Your task to perform on an android device: Where can I buy a nice beach blanket? Image 0: 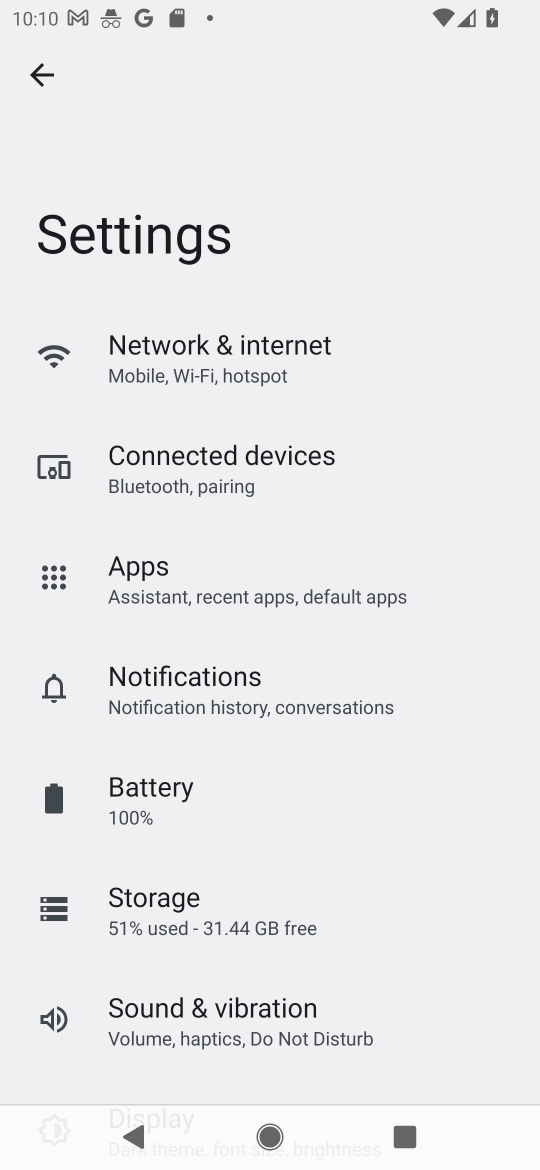
Step 0: press home button
Your task to perform on an android device: Where can I buy a nice beach blanket? Image 1: 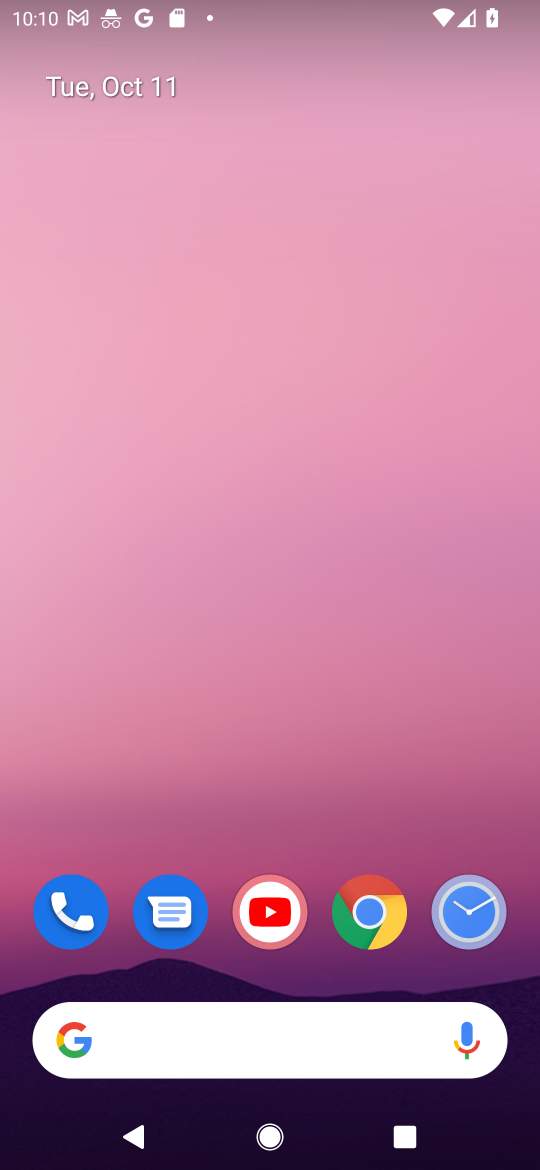
Step 1: click (365, 916)
Your task to perform on an android device: Where can I buy a nice beach blanket? Image 2: 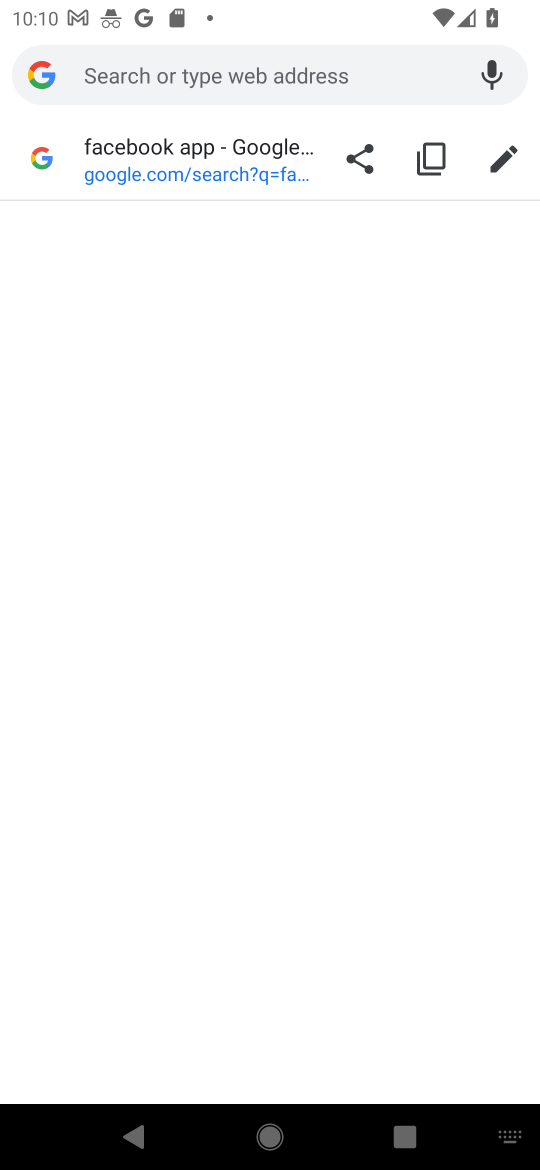
Step 2: click (146, 77)
Your task to perform on an android device: Where can I buy a nice beach blanket? Image 3: 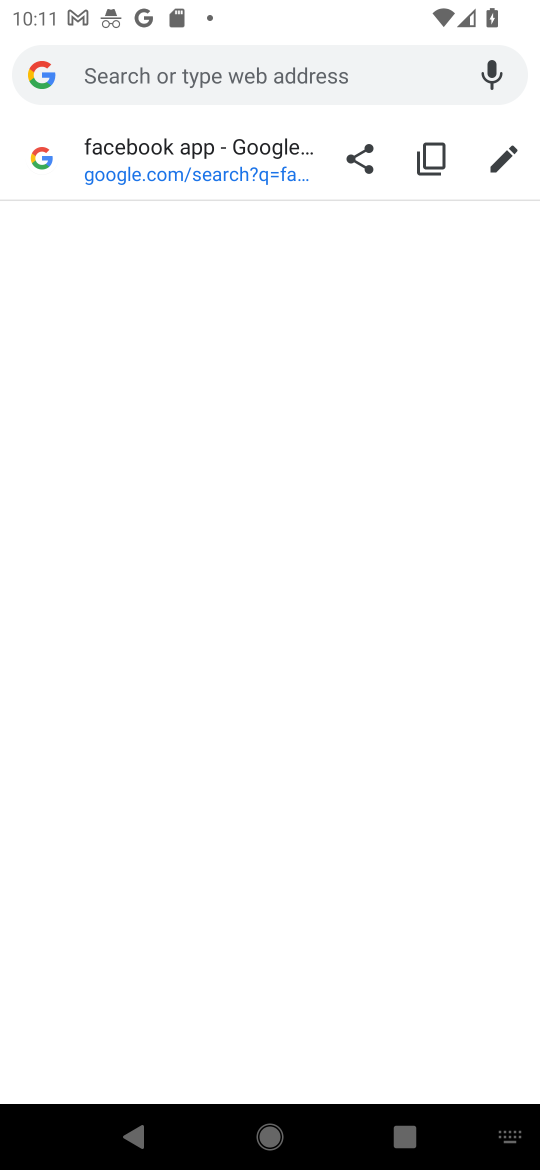
Step 3: type "nice beach blanket?"
Your task to perform on an android device: Where can I buy a nice beach blanket? Image 4: 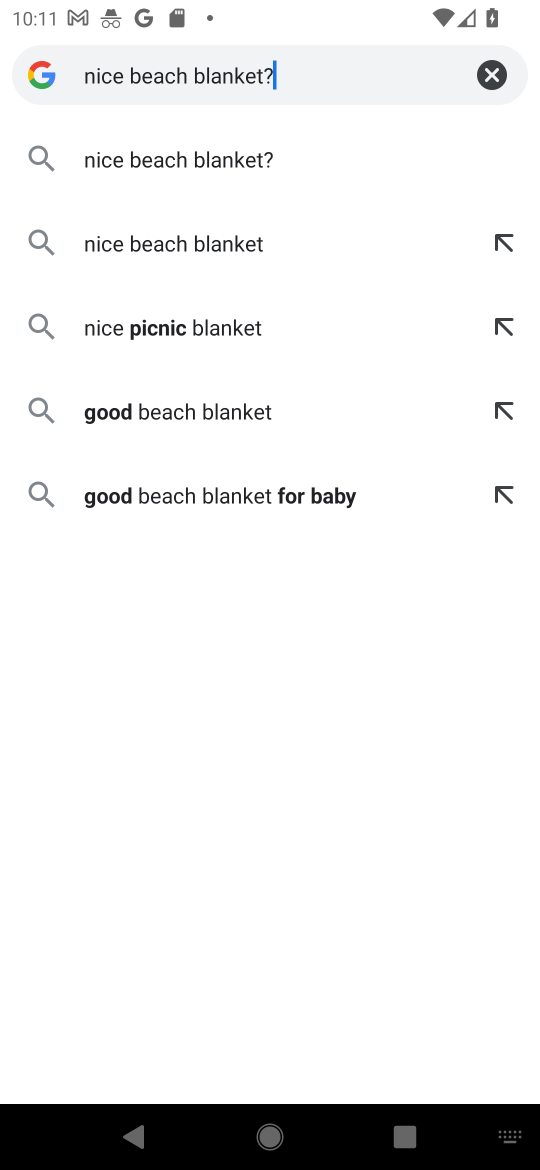
Step 4: click (126, 165)
Your task to perform on an android device: Where can I buy a nice beach blanket? Image 5: 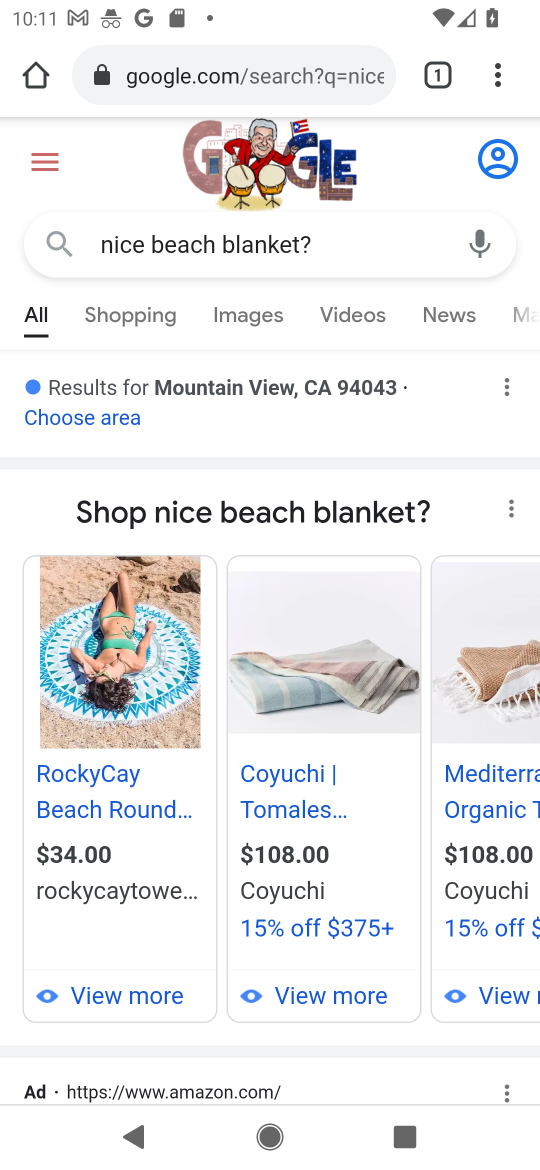
Step 5: drag from (218, 1016) to (210, 404)
Your task to perform on an android device: Where can I buy a nice beach blanket? Image 6: 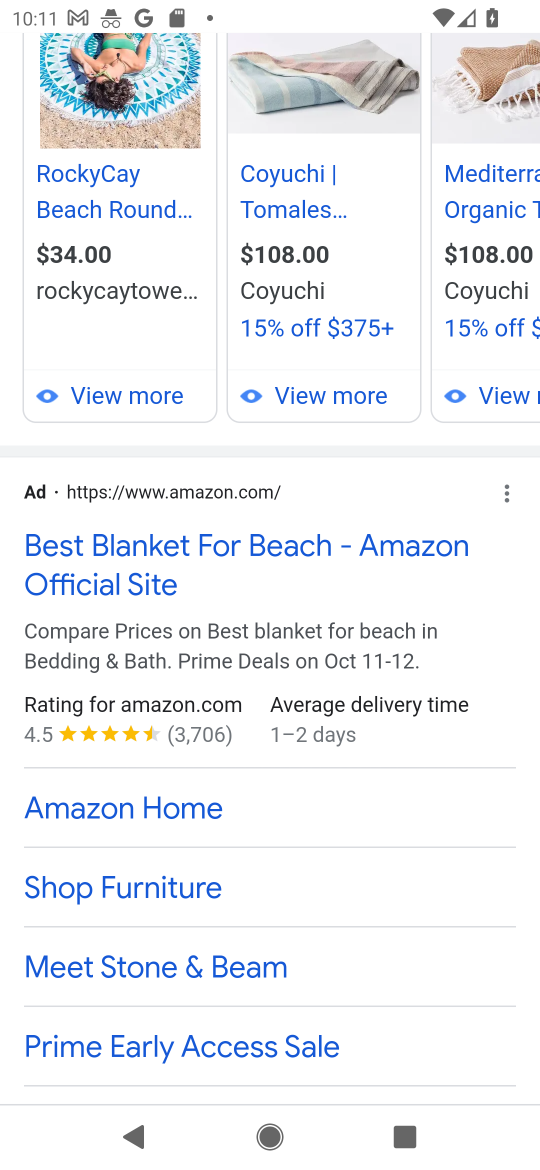
Step 6: click (156, 550)
Your task to perform on an android device: Where can I buy a nice beach blanket? Image 7: 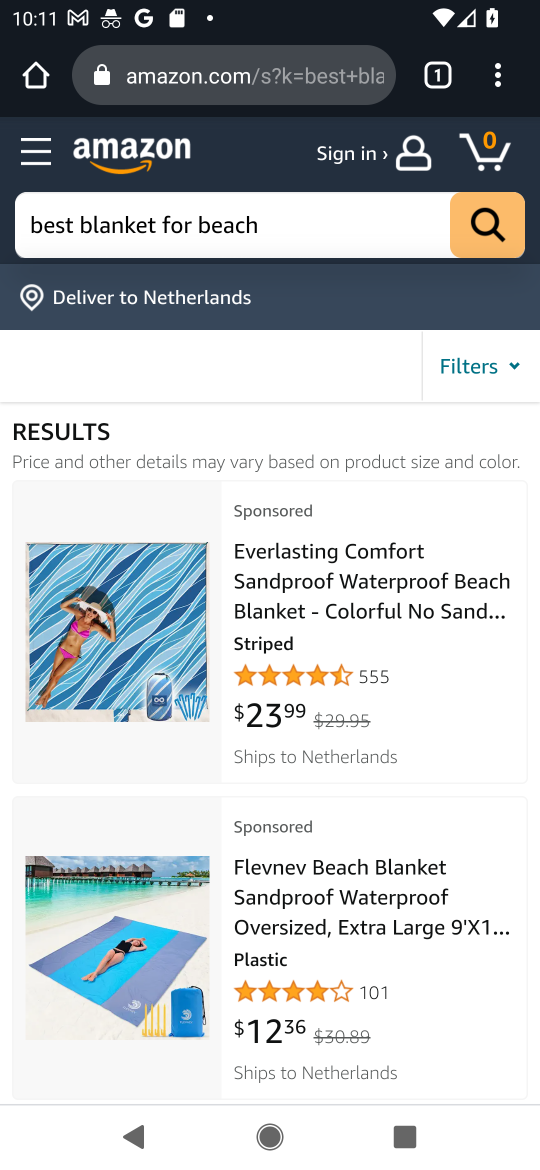
Step 7: task complete